Your task to perform on an android device: Go to battery settings Image 0: 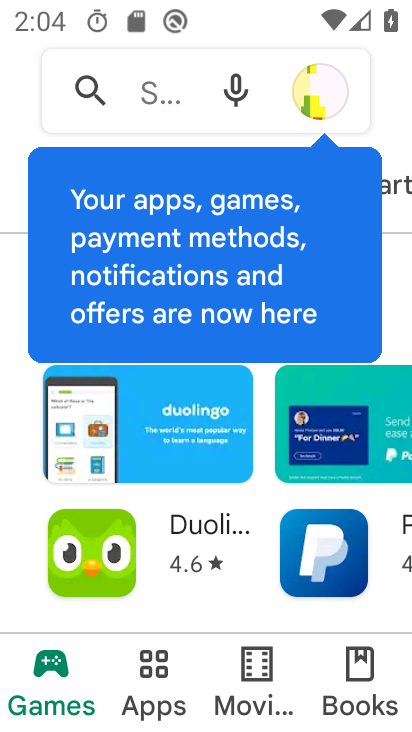
Step 0: task complete